Your task to perform on an android device: set the timer Image 0: 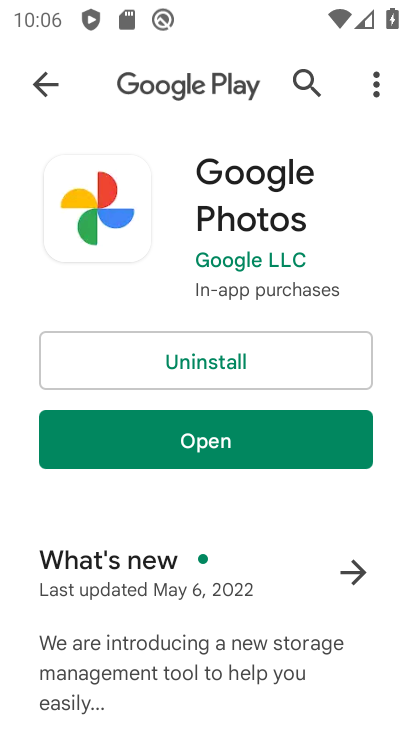
Step 0: press home button
Your task to perform on an android device: set the timer Image 1: 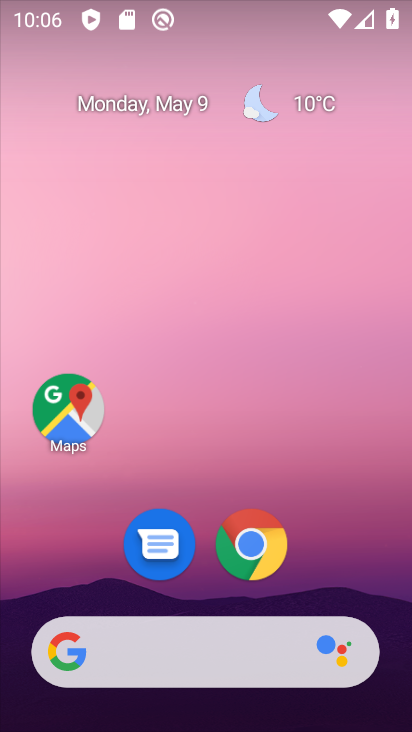
Step 1: drag from (400, 634) to (382, 255)
Your task to perform on an android device: set the timer Image 2: 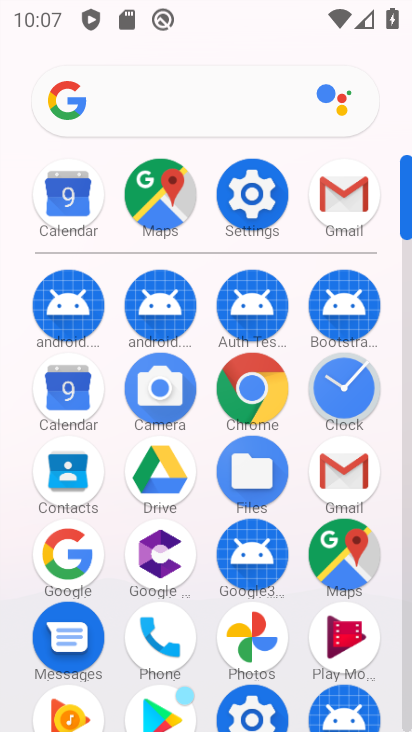
Step 2: click (341, 386)
Your task to perform on an android device: set the timer Image 3: 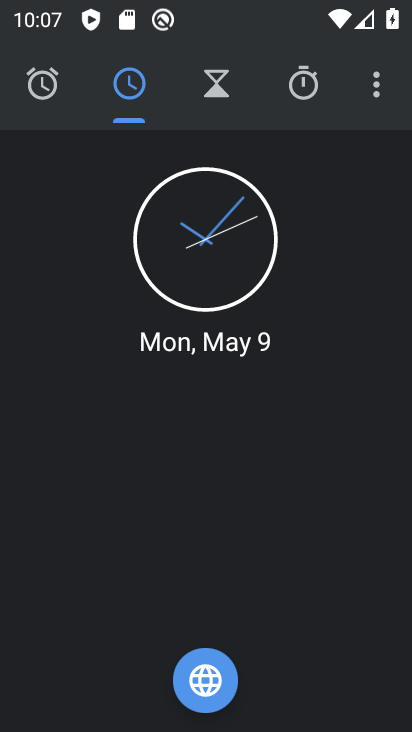
Step 3: click (298, 75)
Your task to perform on an android device: set the timer Image 4: 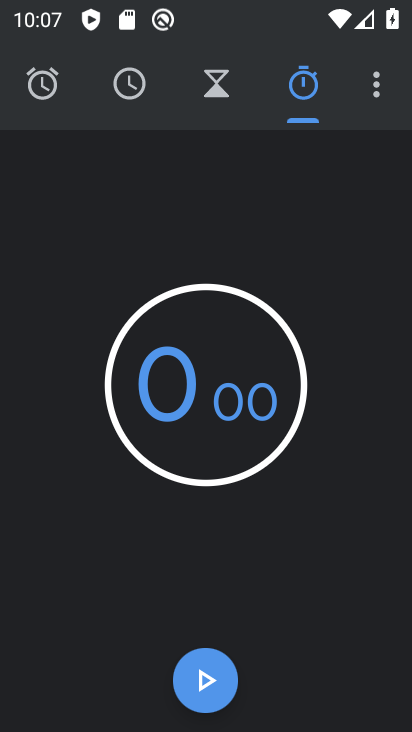
Step 4: click (208, 685)
Your task to perform on an android device: set the timer Image 5: 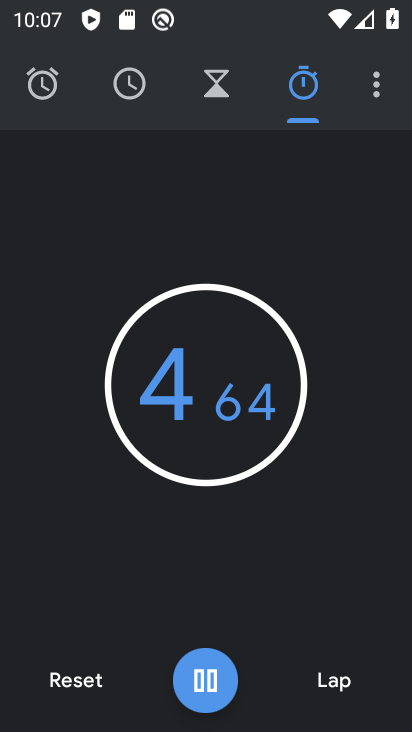
Step 5: task complete